Your task to perform on an android device: turn off notifications settings in the gmail app Image 0: 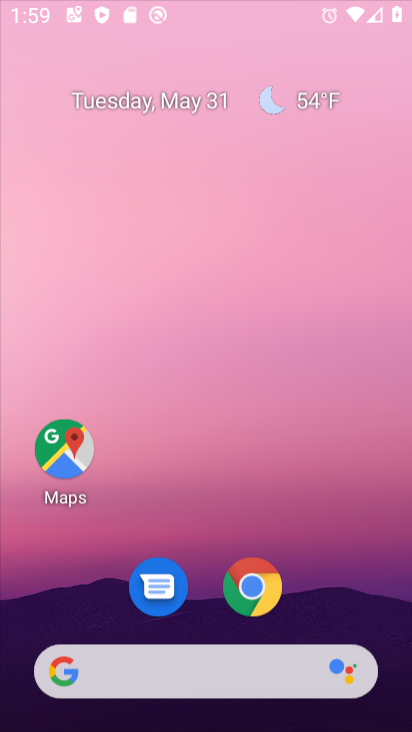
Step 0: click (295, 88)
Your task to perform on an android device: turn off notifications settings in the gmail app Image 1: 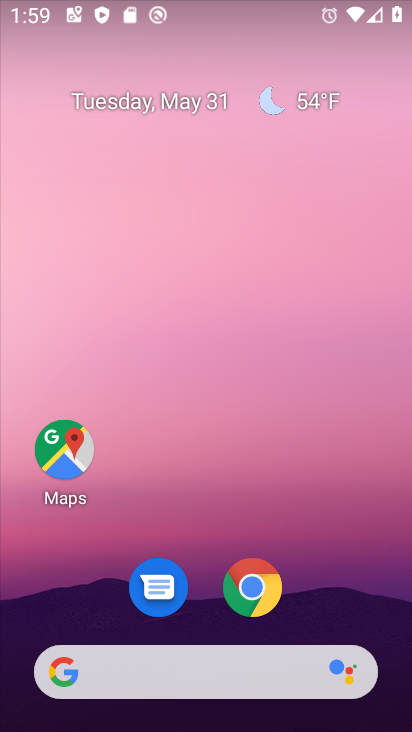
Step 1: drag from (203, 552) to (225, 40)
Your task to perform on an android device: turn off notifications settings in the gmail app Image 2: 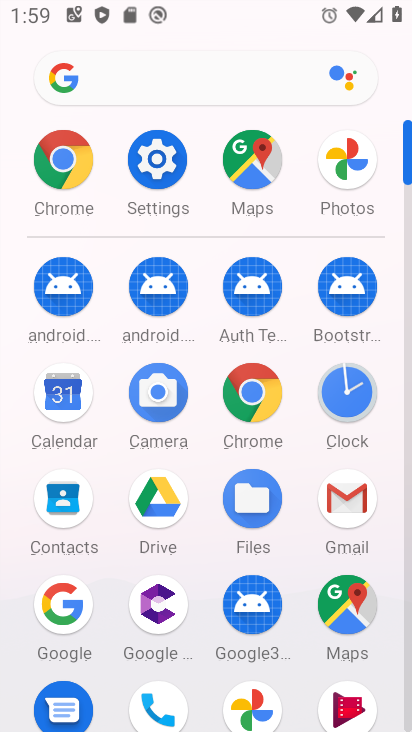
Step 2: click (349, 500)
Your task to perform on an android device: turn off notifications settings in the gmail app Image 3: 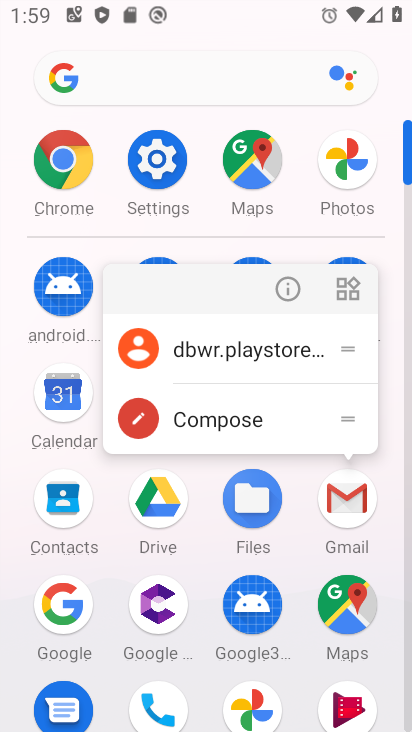
Step 3: click (294, 288)
Your task to perform on an android device: turn off notifications settings in the gmail app Image 4: 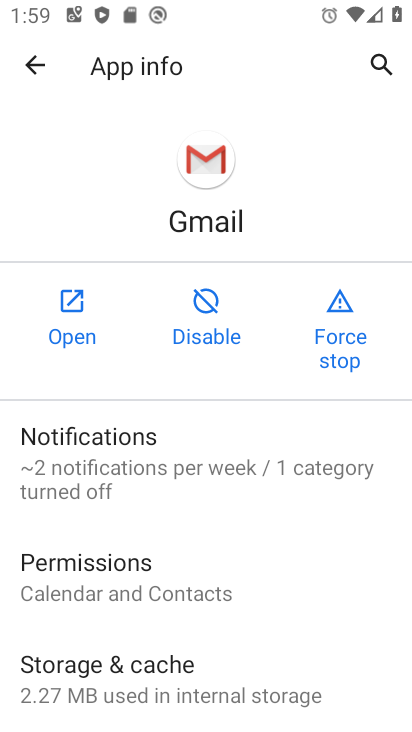
Step 4: click (63, 301)
Your task to perform on an android device: turn off notifications settings in the gmail app Image 5: 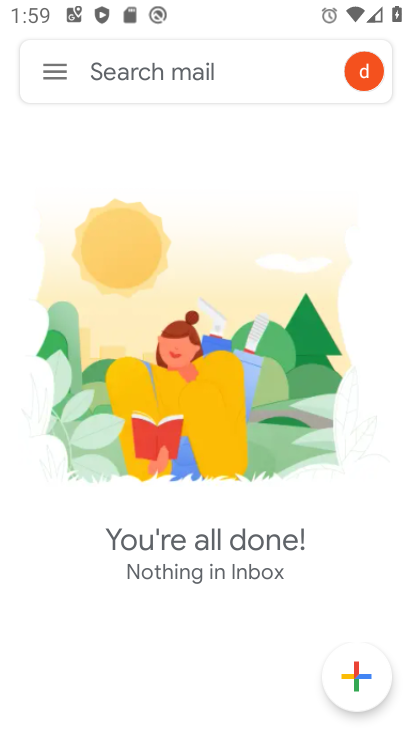
Step 5: click (62, 79)
Your task to perform on an android device: turn off notifications settings in the gmail app Image 6: 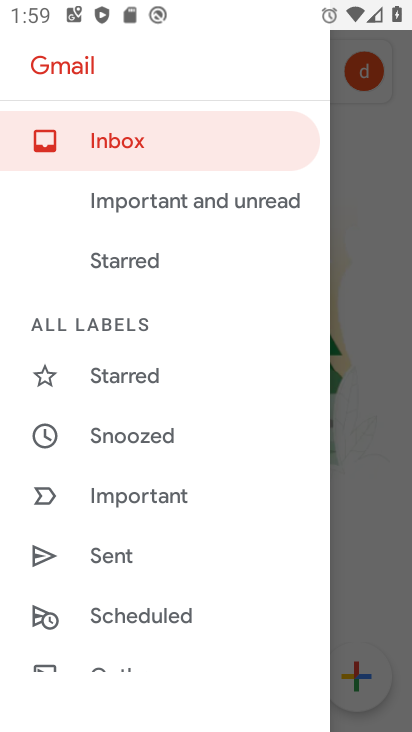
Step 6: drag from (125, 641) to (161, 184)
Your task to perform on an android device: turn off notifications settings in the gmail app Image 7: 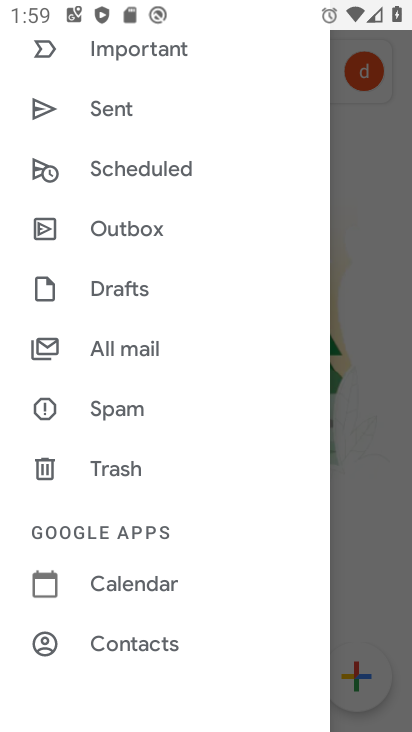
Step 7: drag from (138, 599) to (177, 257)
Your task to perform on an android device: turn off notifications settings in the gmail app Image 8: 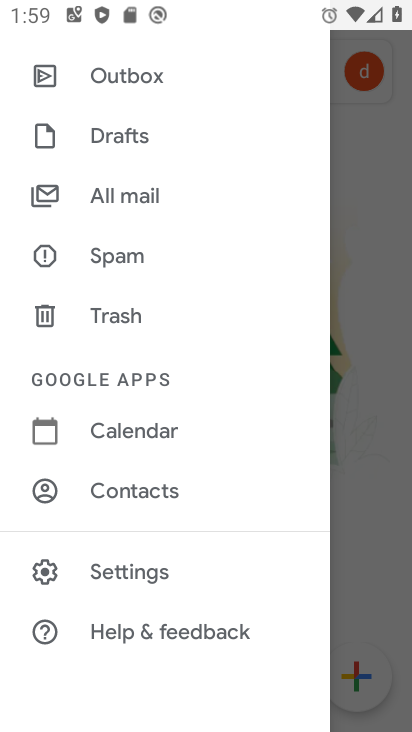
Step 8: click (140, 575)
Your task to perform on an android device: turn off notifications settings in the gmail app Image 9: 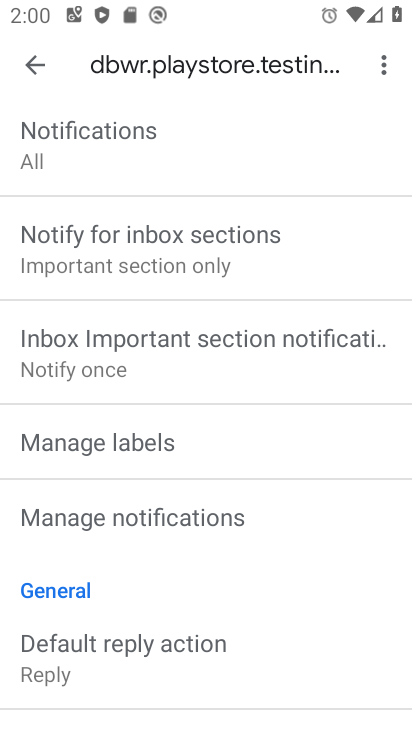
Step 9: click (137, 526)
Your task to perform on an android device: turn off notifications settings in the gmail app Image 10: 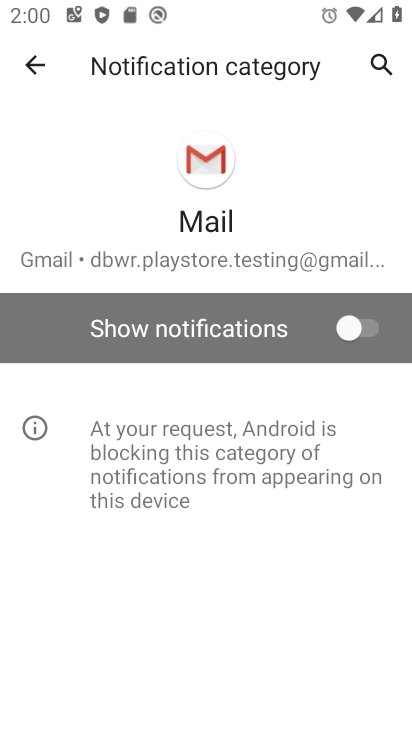
Step 10: task complete